Your task to perform on an android device: Is it going to rain tomorrow? Image 0: 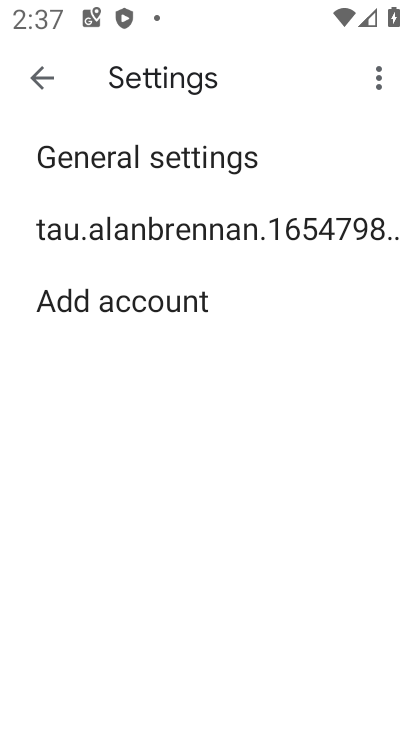
Step 0: press home button
Your task to perform on an android device: Is it going to rain tomorrow? Image 1: 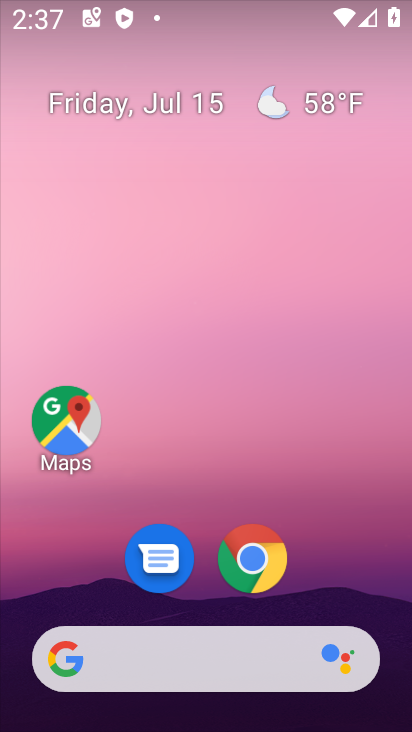
Step 1: click (278, 649)
Your task to perform on an android device: Is it going to rain tomorrow? Image 2: 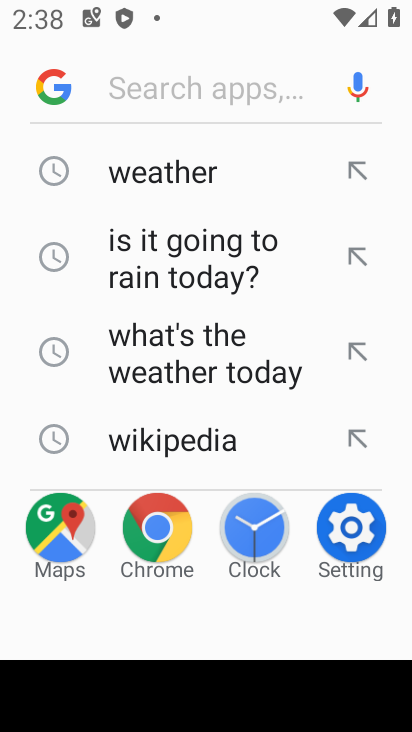
Step 2: click (215, 172)
Your task to perform on an android device: Is it going to rain tomorrow? Image 3: 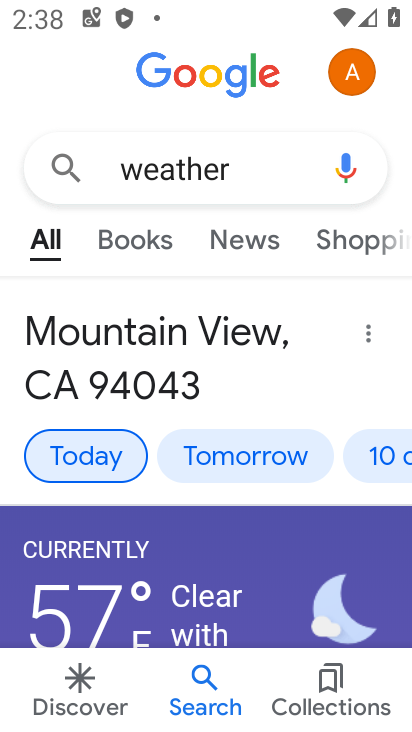
Step 3: click (246, 452)
Your task to perform on an android device: Is it going to rain tomorrow? Image 4: 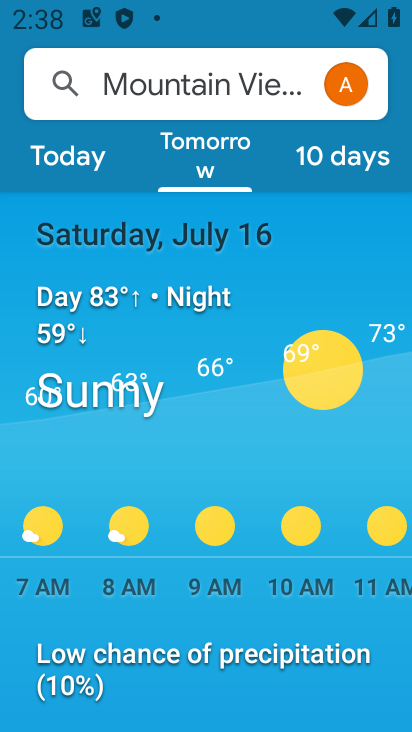
Step 4: task complete